Your task to perform on an android device: Go to eBay Image 0: 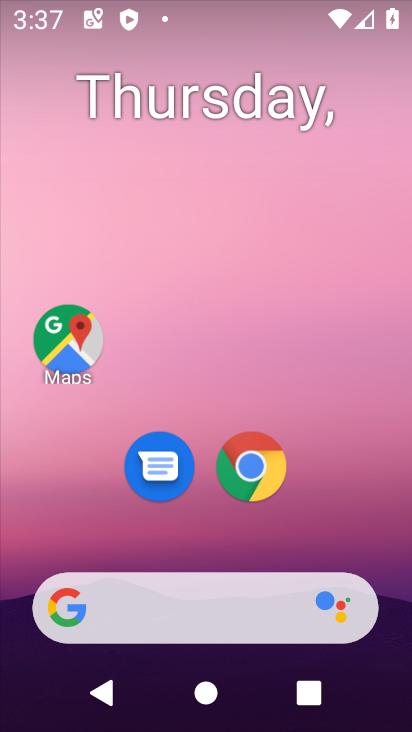
Step 0: drag from (233, 616) to (360, 15)
Your task to perform on an android device: Go to eBay Image 1: 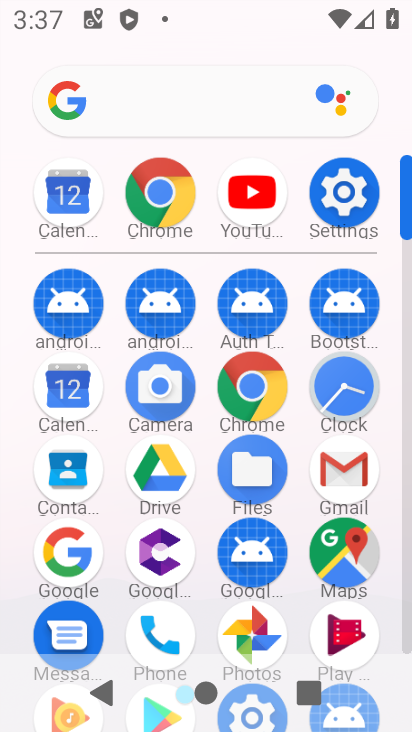
Step 1: click (260, 378)
Your task to perform on an android device: Go to eBay Image 2: 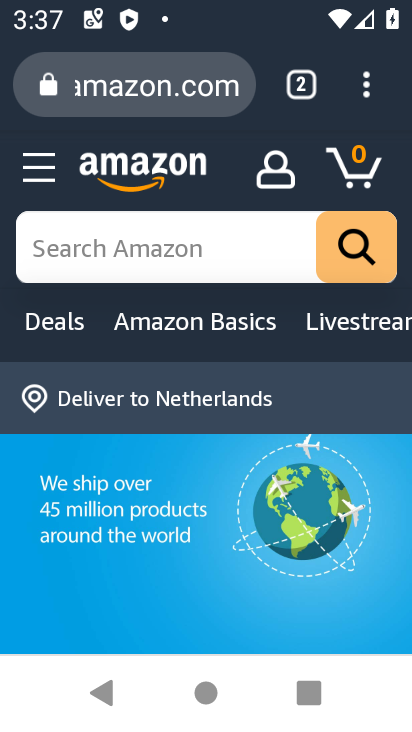
Step 2: click (190, 77)
Your task to perform on an android device: Go to eBay Image 3: 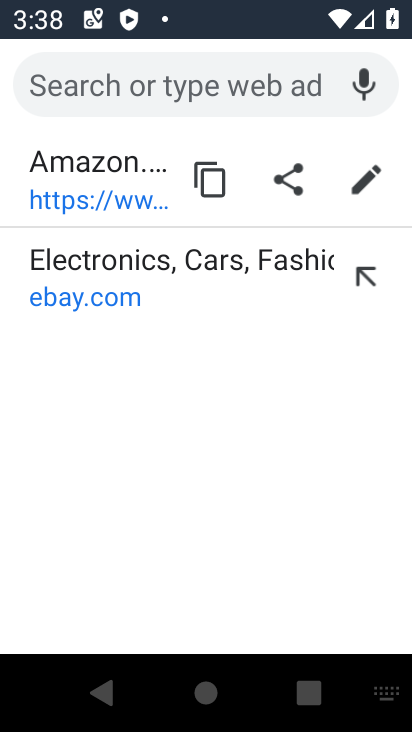
Step 3: type "ebay"
Your task to perform on an android device: Go to eBay Image 4: 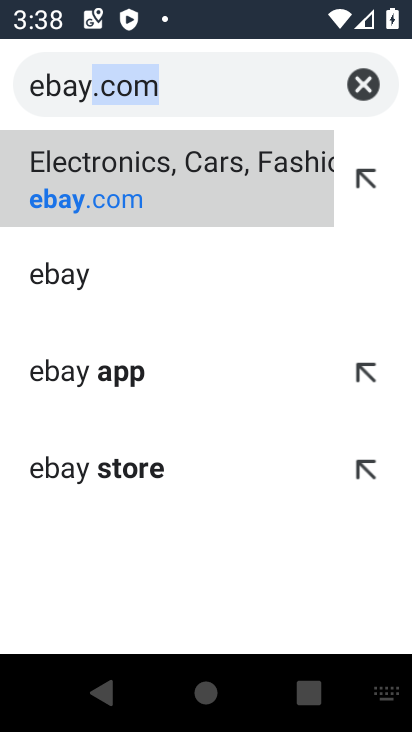
Step 4: click (125, 198)
Your task to perform on an android device: Go to eBay Image 5: 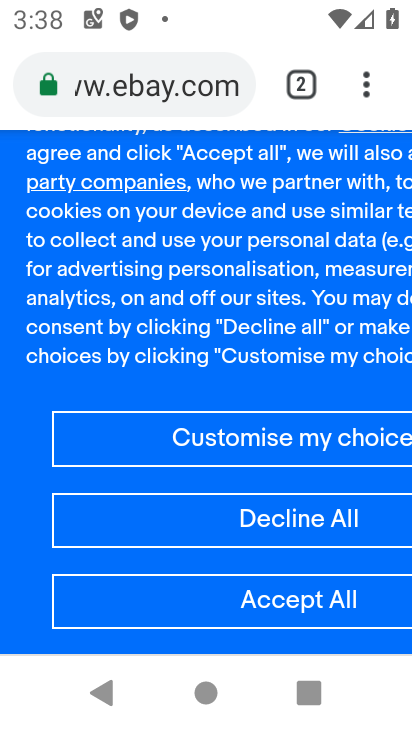
Step 5: task complete